Your task to perform on an android device: What is the capital of Japan? Image 0: 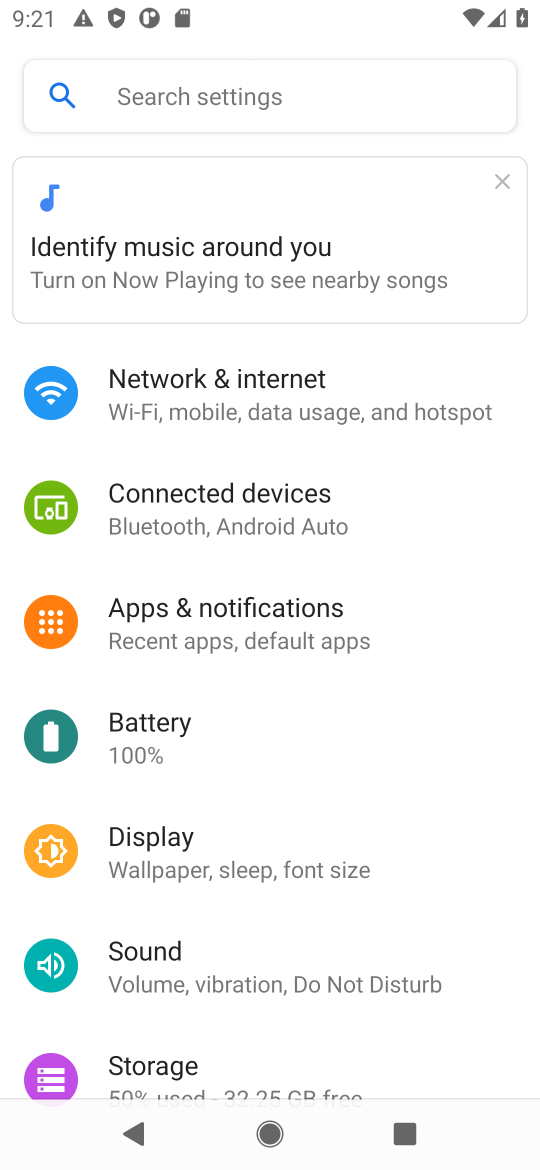
Step 0: press home button
Your task to perform on an android device: What is the capital of Japan? Image 1: 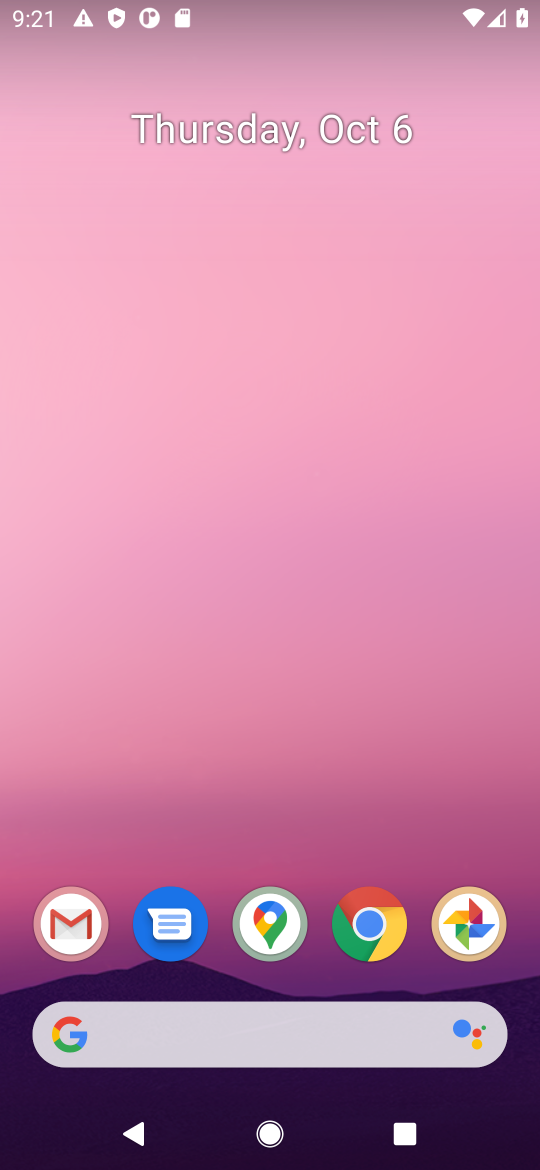
Step 1: click (370, 924)
Your task to perform on an android device: What is the capital of Japan? Image 2: 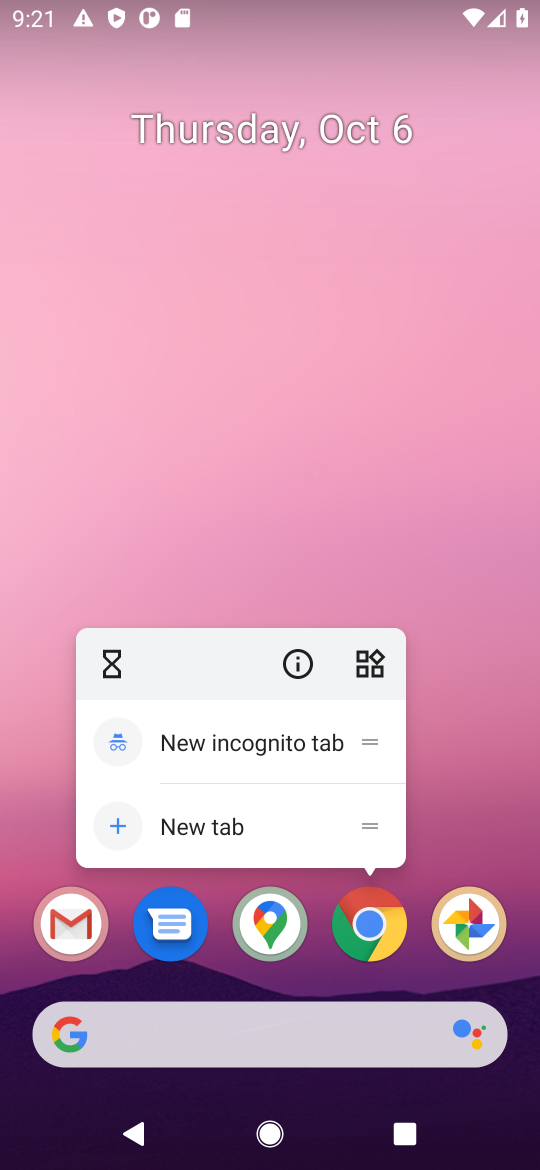
Step 2: click (352, 943)
Your task to perform on an android device: What is the capital of Japan? Image 3: 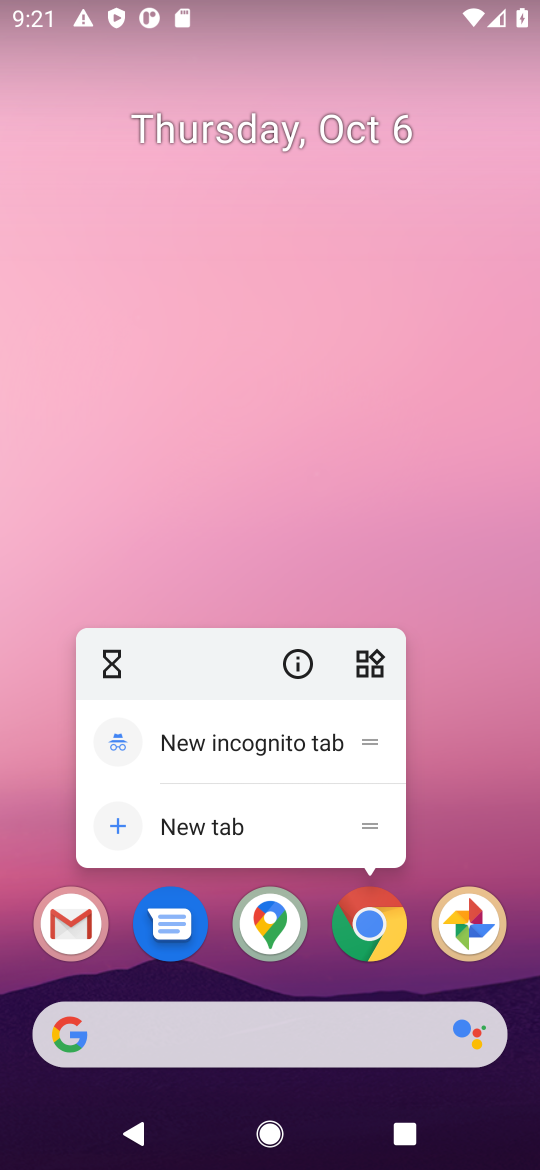
Step 3: click (367, 932)
Your task to perform on an android device: What is the capital of Japan? Image 4: 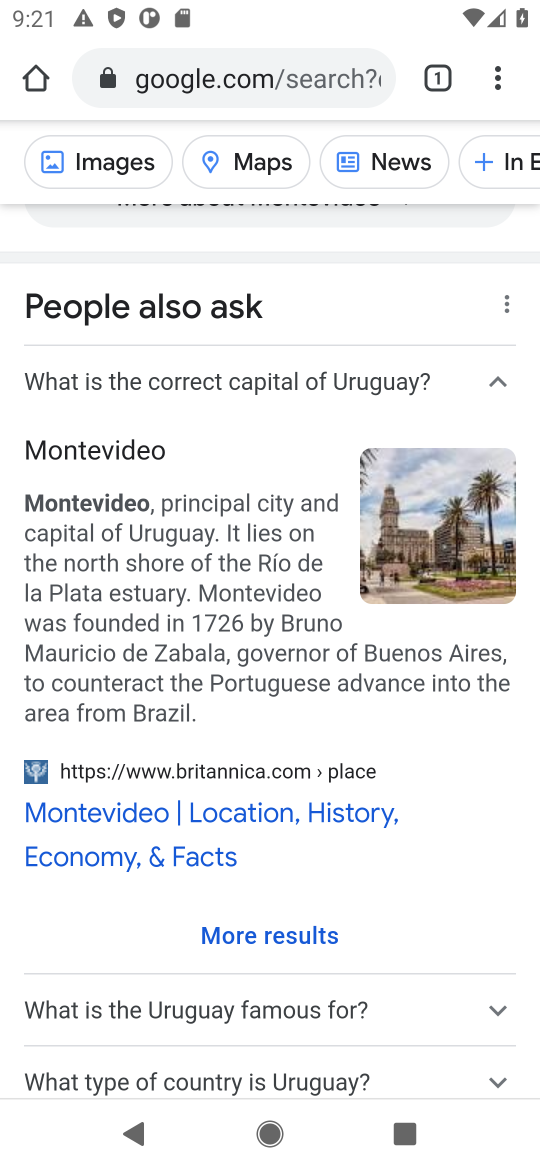
Step 4: click (330, 82)
Your task to perform on an android device: What is the capital of Japan? Image 5: 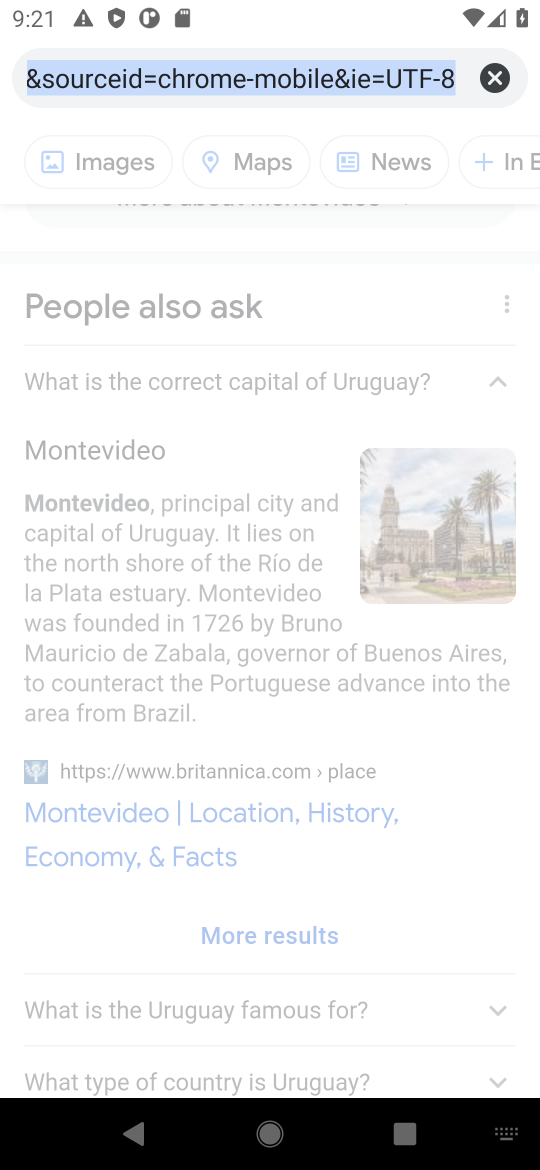
Step 5: click (492, 81)
Your task to perform on an android device: What is the capital of Japan? Image 6: 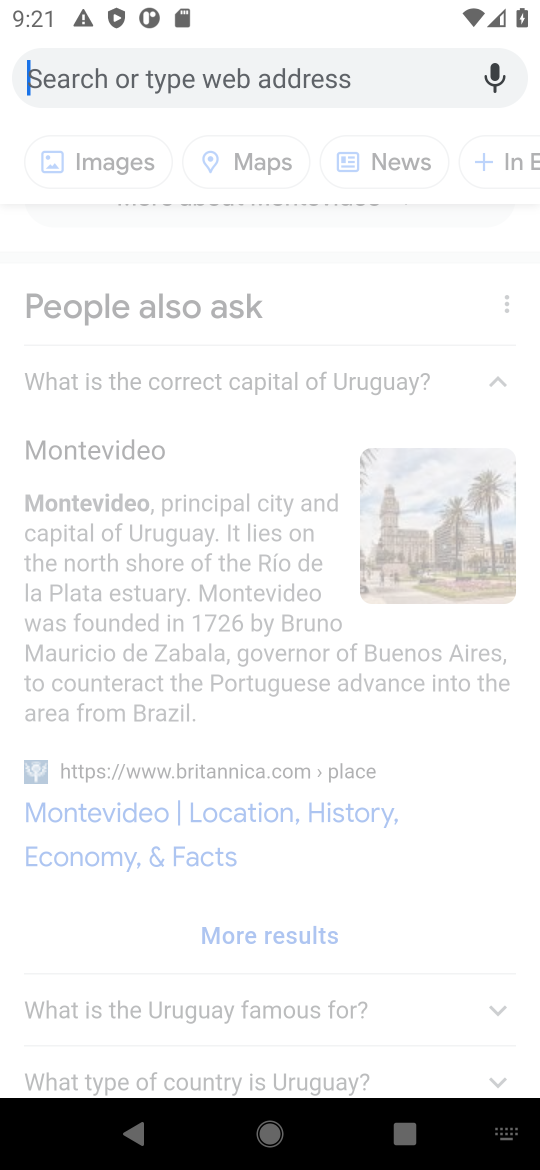
Step 6: type "capital of Japan"
Your task to perform on an android device: What is the capital of Japan? Image 7: 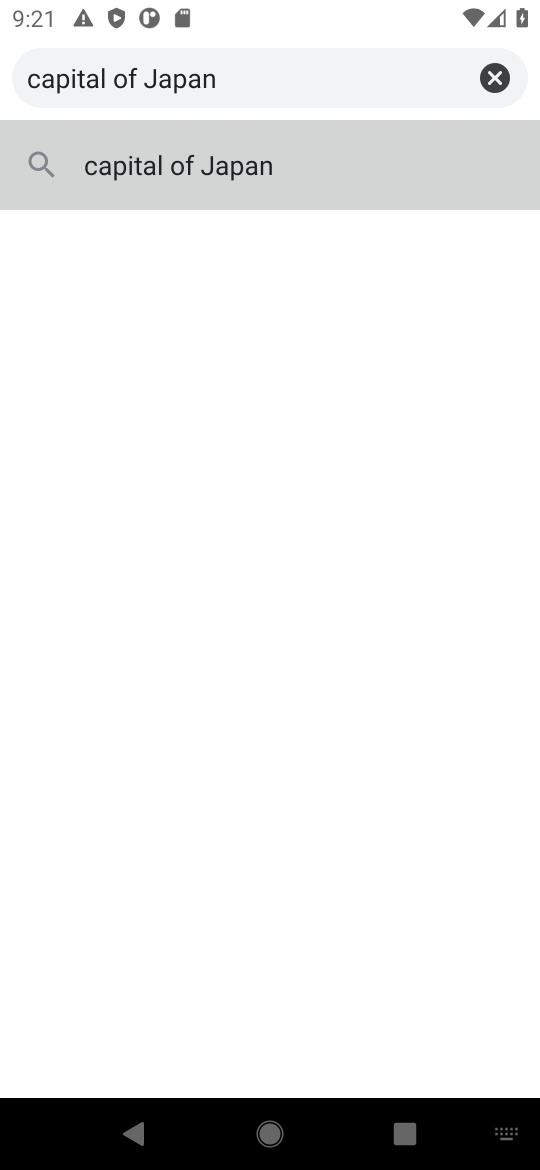
Step 7: click (198, 164)
Your task to perform on an android device: What is the capital of Japan? Image 8: 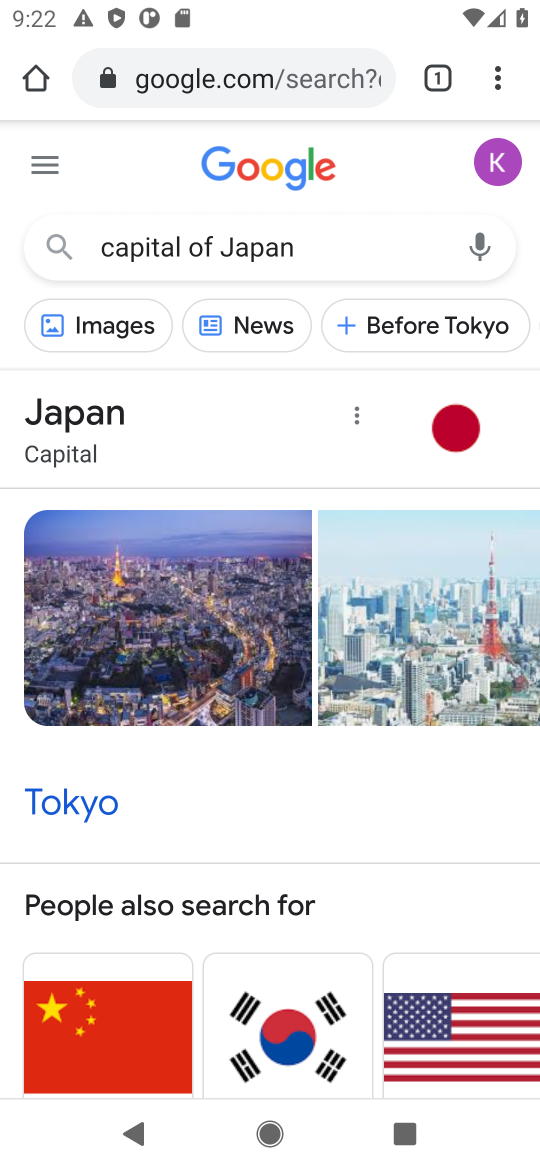
Step 8: drag from (286, 959) to (481, 221)
Your task to perform on an android device: What is the capital of Japan? Image 9: 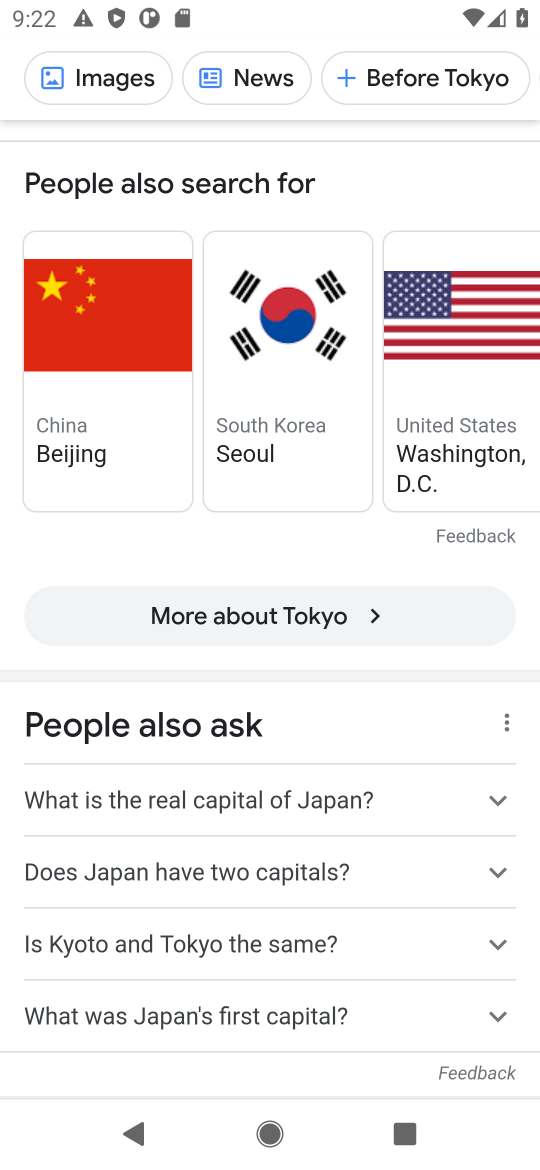
Step 9: click (498, 798)
Your task to perform on an android device: What is the capital of Japan? Image 10: 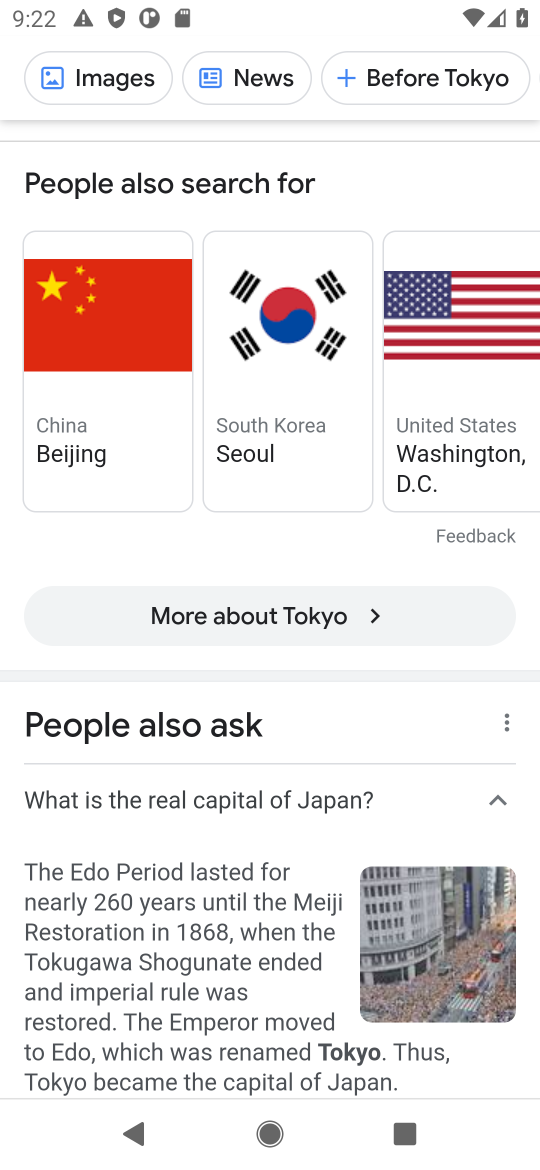
Step 10: drag from (219, 1001) to (466, 184)
Your task to perform on an android device: What is the capital of Japan? Image 11: 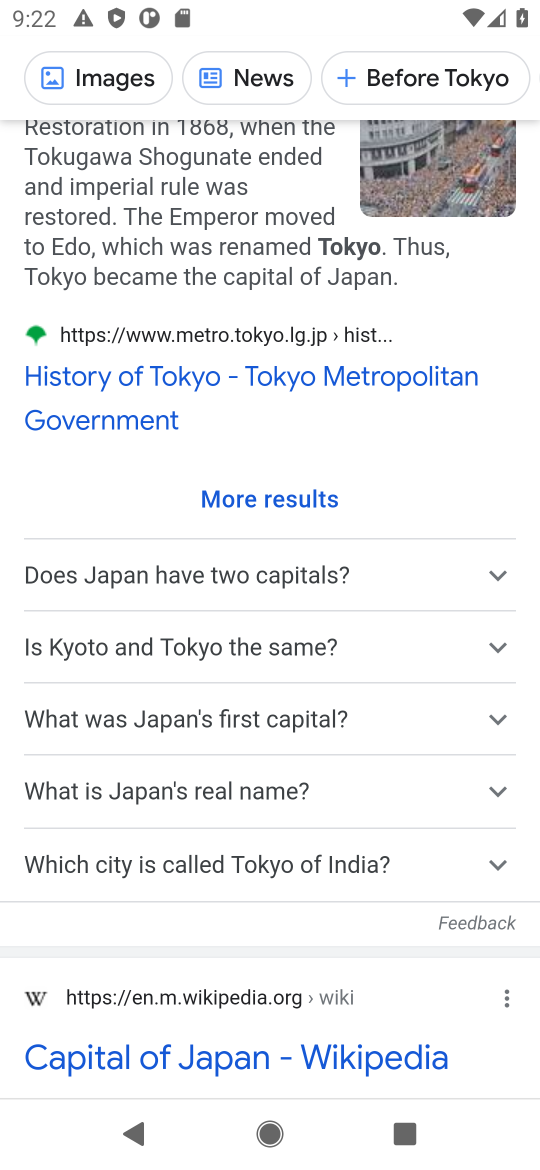
Step 11: drag from (193, 991) to (385, 464)
Your task to perform on an android device: What is the capital of Japan? Image 12: 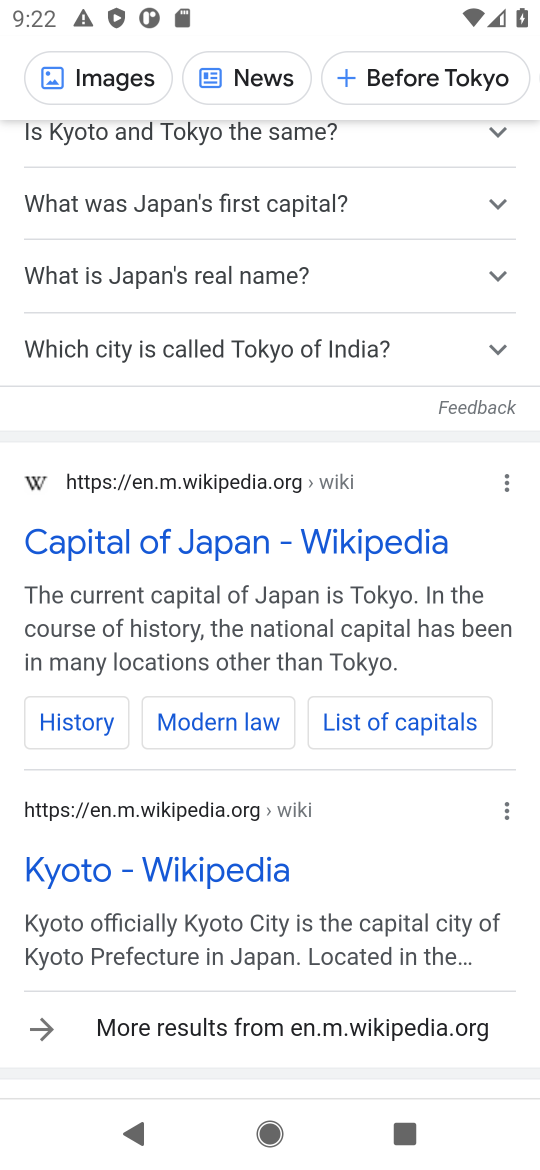
Step 12: click (216, 541)
Your task to perform on an android device: What is the capital of Japan? Image 13: 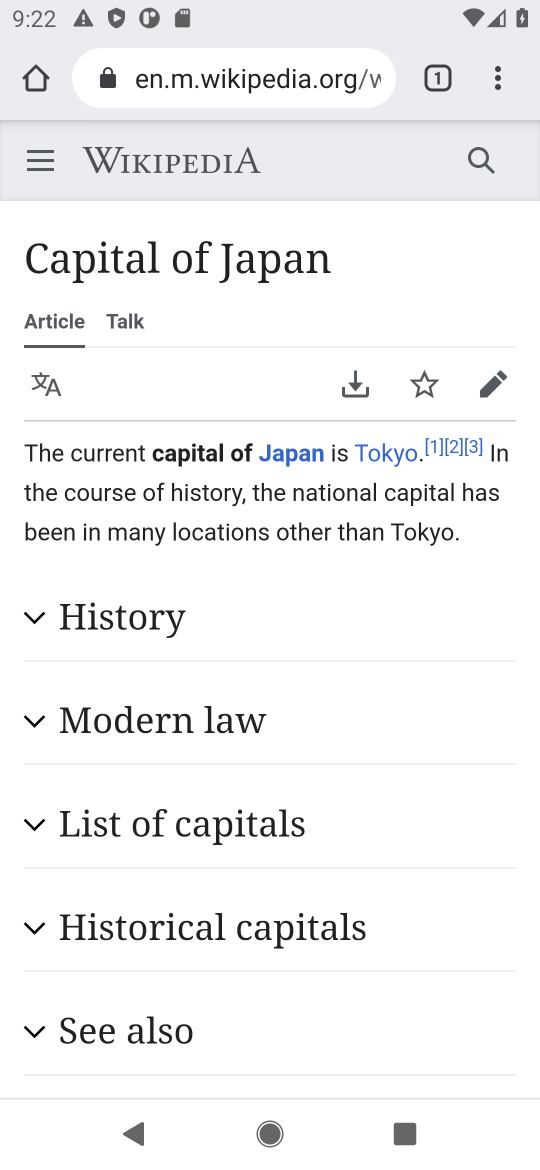
Step 13: task complete